Your task to perform on an android device: Go to network settings Image 0: 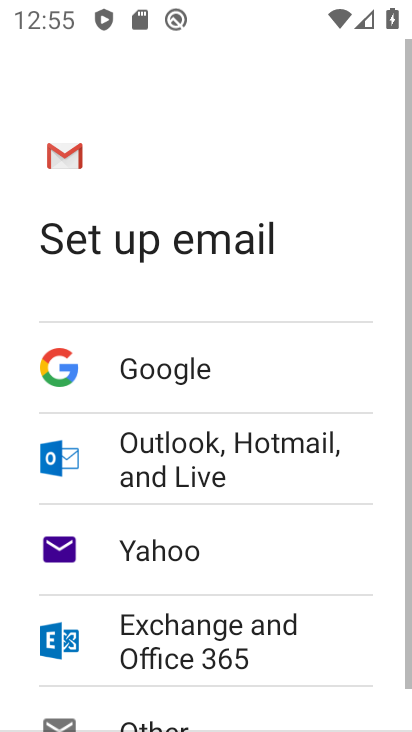
Step 0: press home button
Your task to perform on an android device: Go to network settings Image 1: 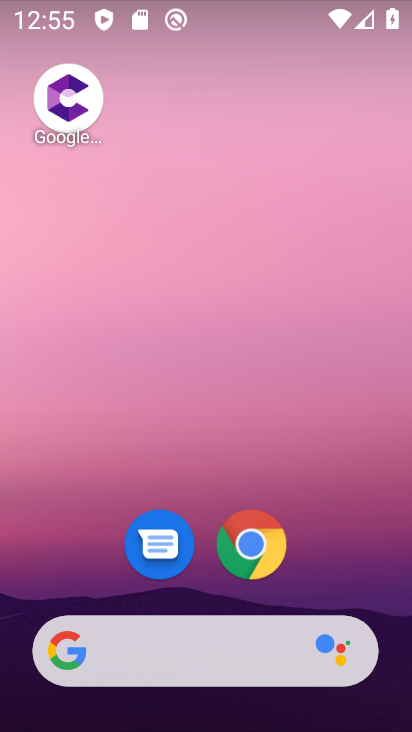
Step 1: drag from (225, 727) to (241, 109)
Your task to perform on an android device: Go to network settings Image 2: 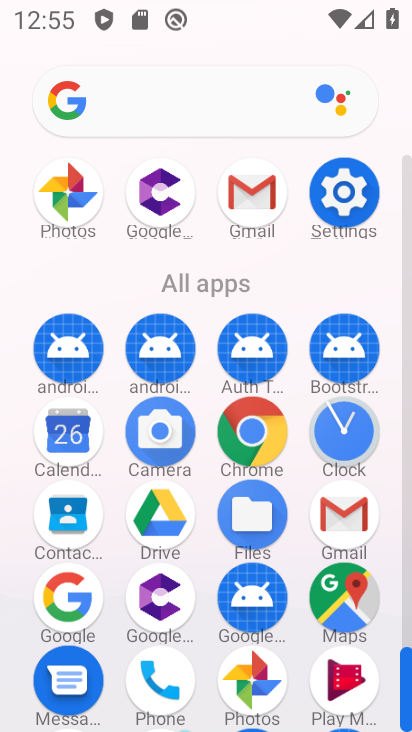
Step 2: click (396, 223)
Your task to perform on an android device: Go to network settings Image 3: 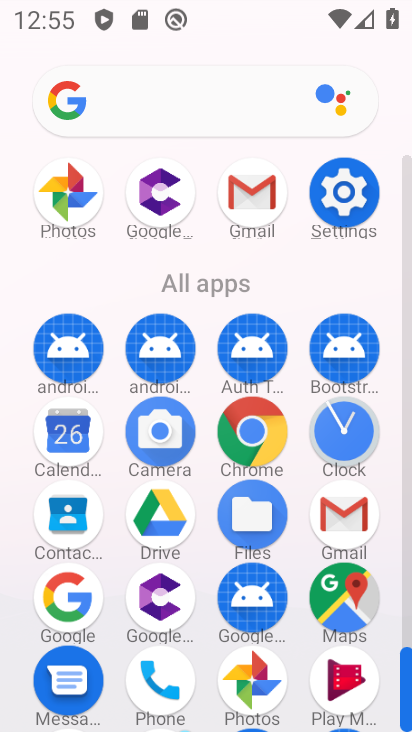
Step 3: click (341, 189)
Your task to perform on an android device: Go to network settings Image 4: 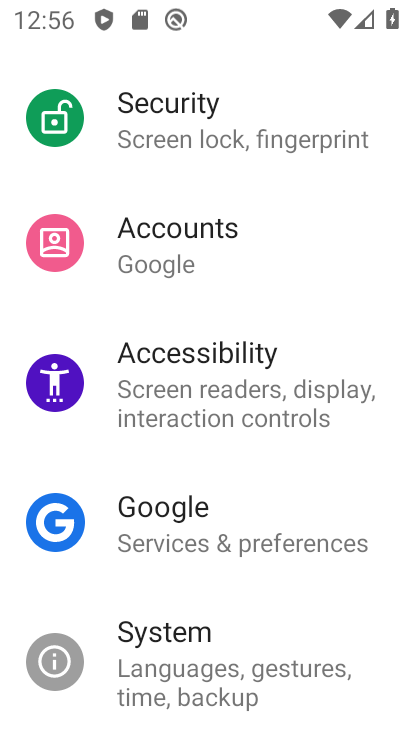
Step 4: drag from (256, 172) to (255, 654)
Your task to perform on an android device: Go to network settings Image 5: 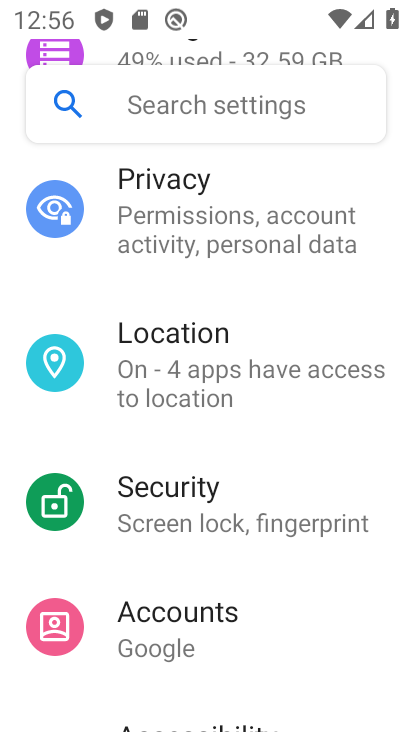
Step 5: drag from (241, 179) to (262, 505)
Your task to perform on an android device: Go to network settings Image 6: 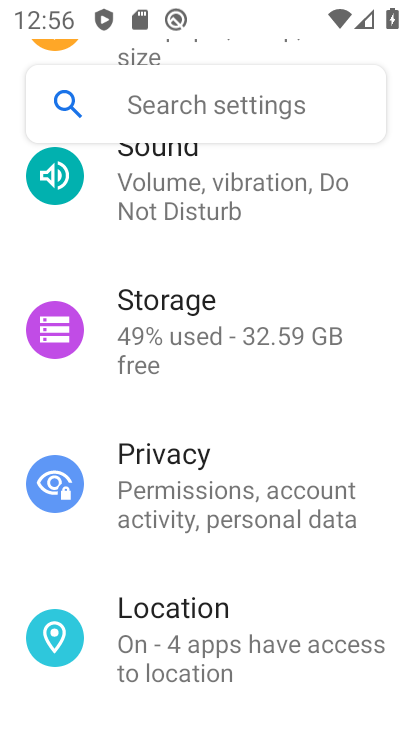
Step 6: drag from (234, 171) to (244, 517)
Your task to perform on an android device: Go to network settings Image 7: 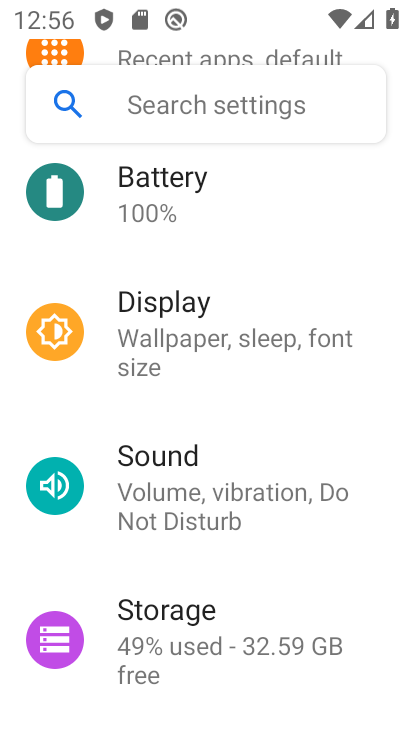
Step 7: drag from (246, 171) to (288, 530)
Your task to perform on an android device: Go to network settings Image 8: 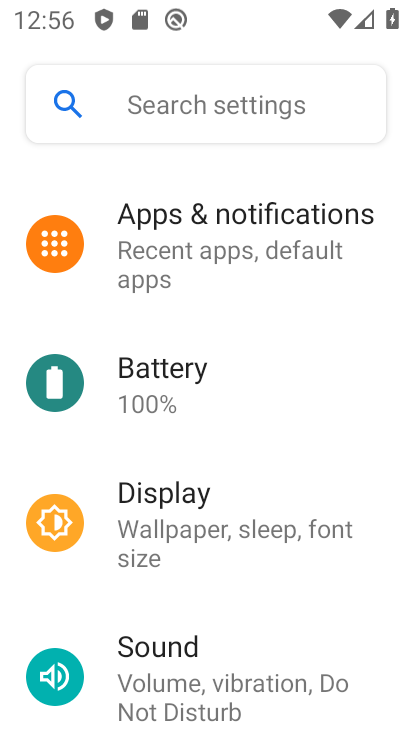
Step 8: drag from (186, 181) to (202, 582)
Your task to perform on an android device: Go to network settings Image 9: 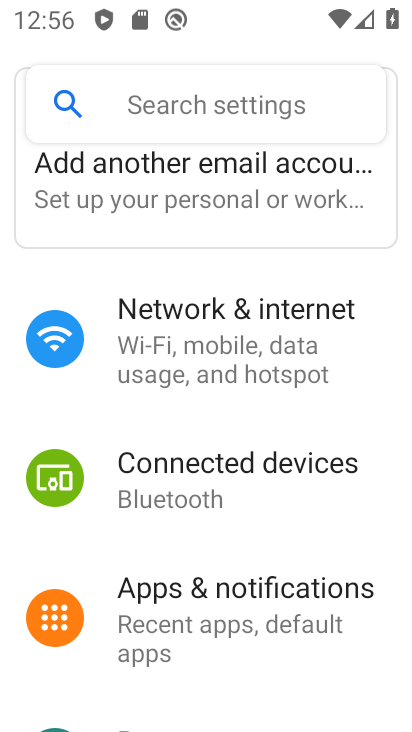
Step 9: click (201, 355)
Your task to perform on an android device: Go to network settings Image 10: 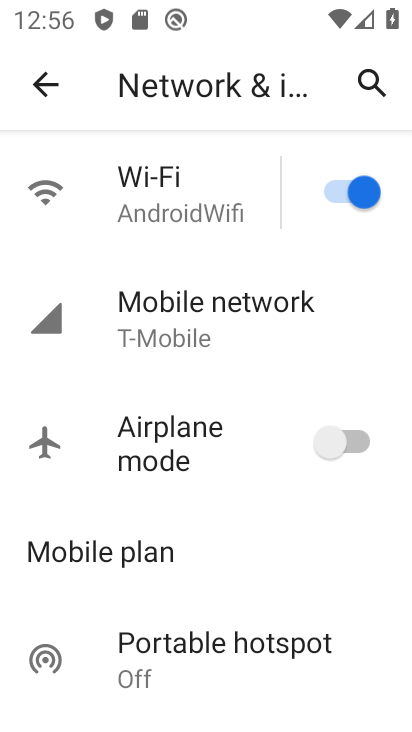
Step 10: click (178, 319)
Your task to perform on an android device: Go to network settings Image 11: 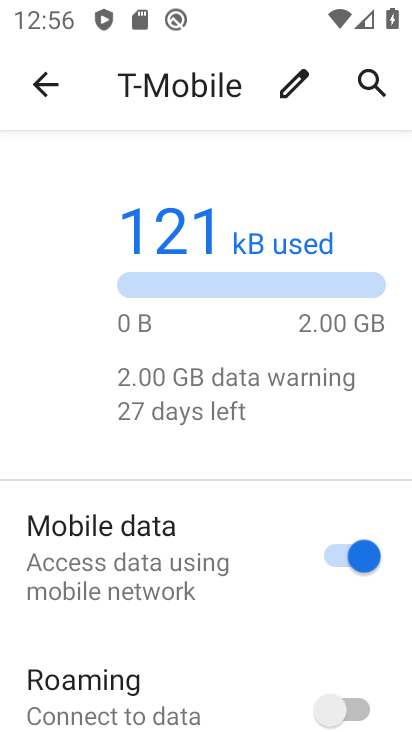
Step 11: task complete